Your task to perform on an android device: Empty the shopping cart on amazon. Image 0: 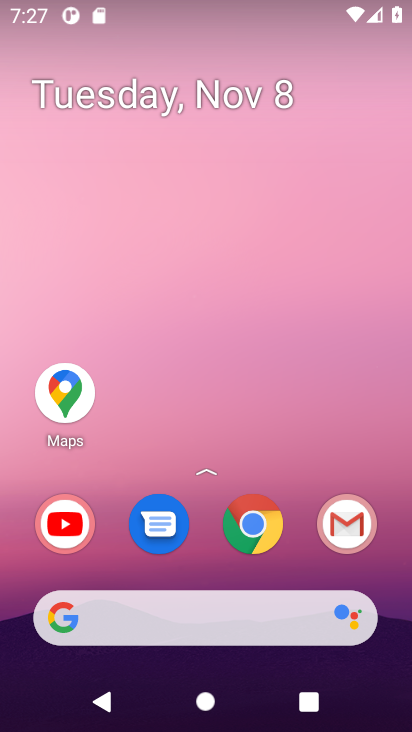
Step 0: click (258, 535)
Your task to perform on an android device: Empty the shopping cart on amazon. Image 1: 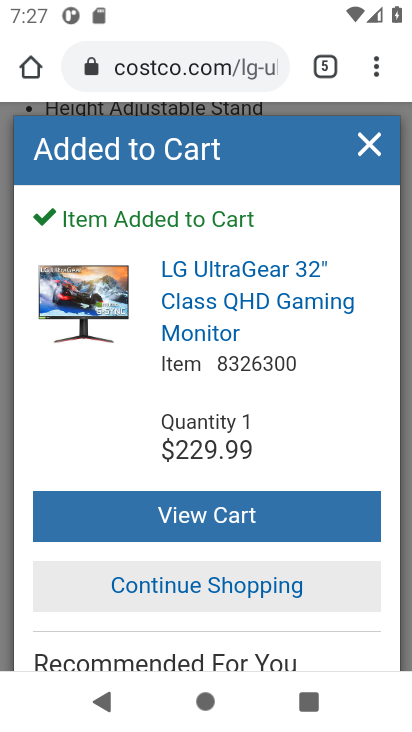
Step 1: click (216, 68)
Your task to perform on an android device: Empty the shopping cart on amazon. Image 2: 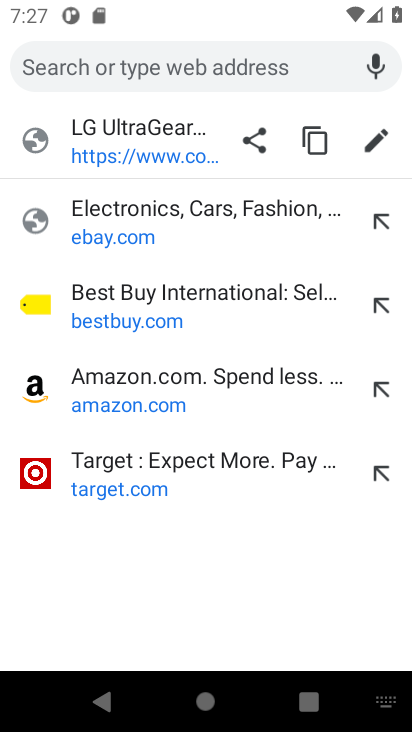
Step 2: click (114, 412)
Your task to perform on an android device: Empty the shopping cart on amazon. Image 3: 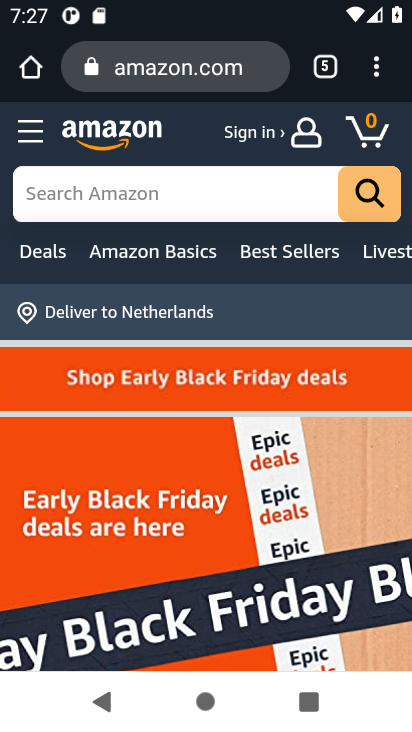
Step 3: click (366, 142)
Your task to perform on an android device: Empty the shopping cart on amazon. Image 4: 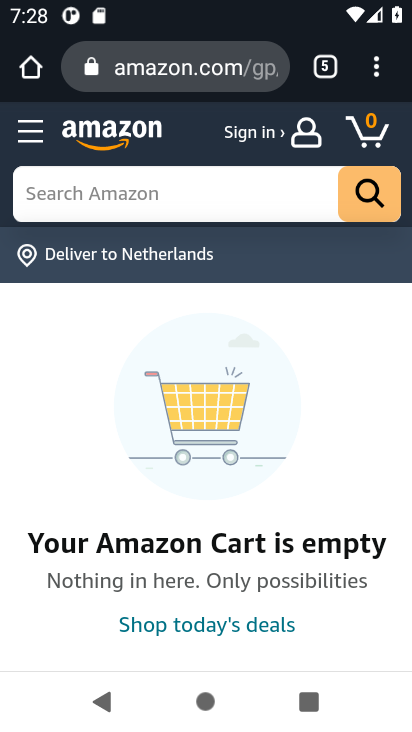
Step 4: click (367, 133)
Your task to perform on an android device: Empty the shopping cart on amazon. Image 5: 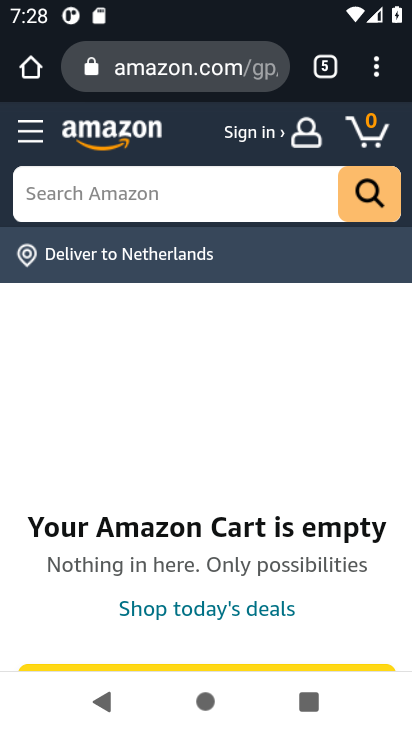
Step 5: task complete